Your task to perform on an android device: open app "Contacts" (install if not already installed) Image 0: 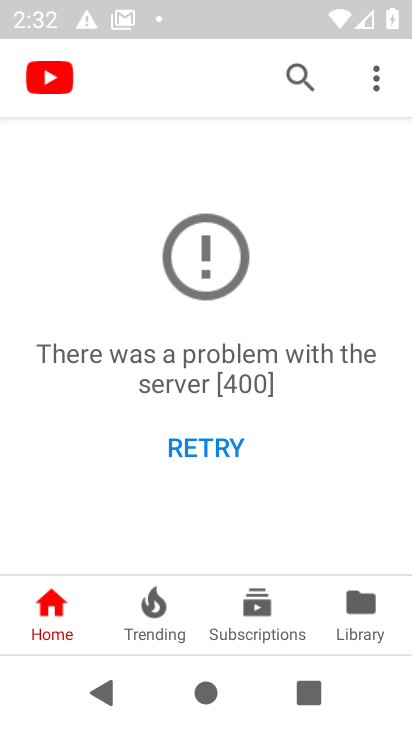
Step 0: press home button
Your task to perform on an android device: open app "Contacts" (install if not already installed) Image 1: 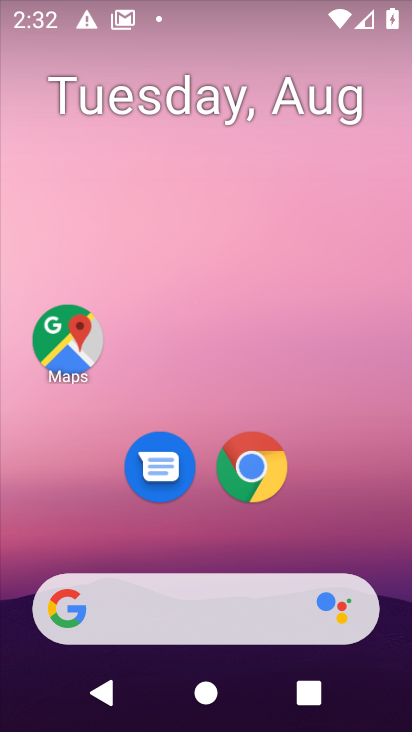
Step 1: drag from (208, 558) to (228, 4)
Your task to perform on an android device: open app "Contacts" (install if not already installed) Image 2: 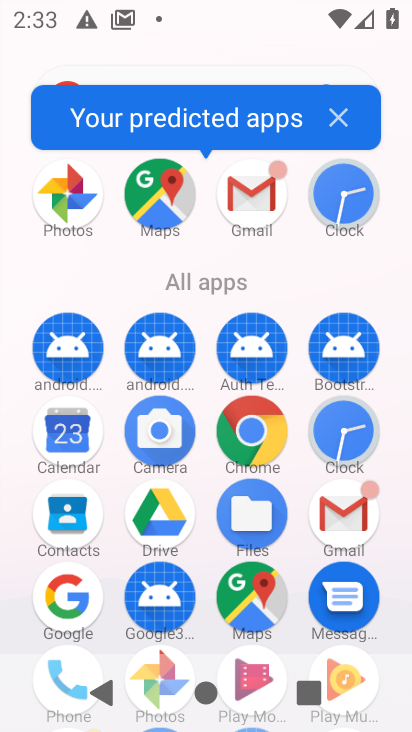
Step 2: click (55, 542)
Your task to perform on an android device: open app "Contacts" (install if not already installed) Image 3: 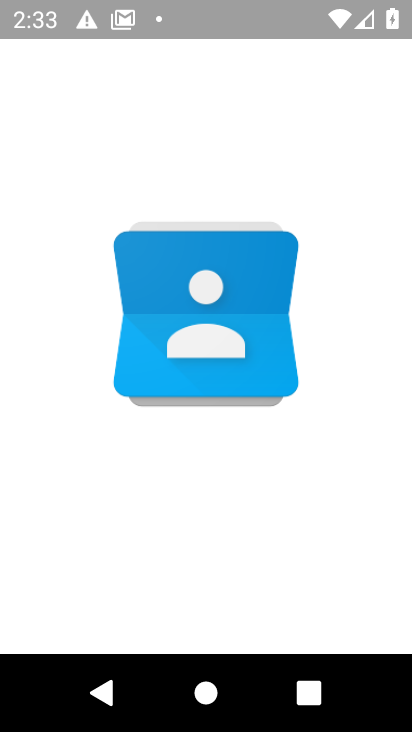
Step 3: task complete